Your task to perform on an android device: open app "The Home Depot" Image 0: 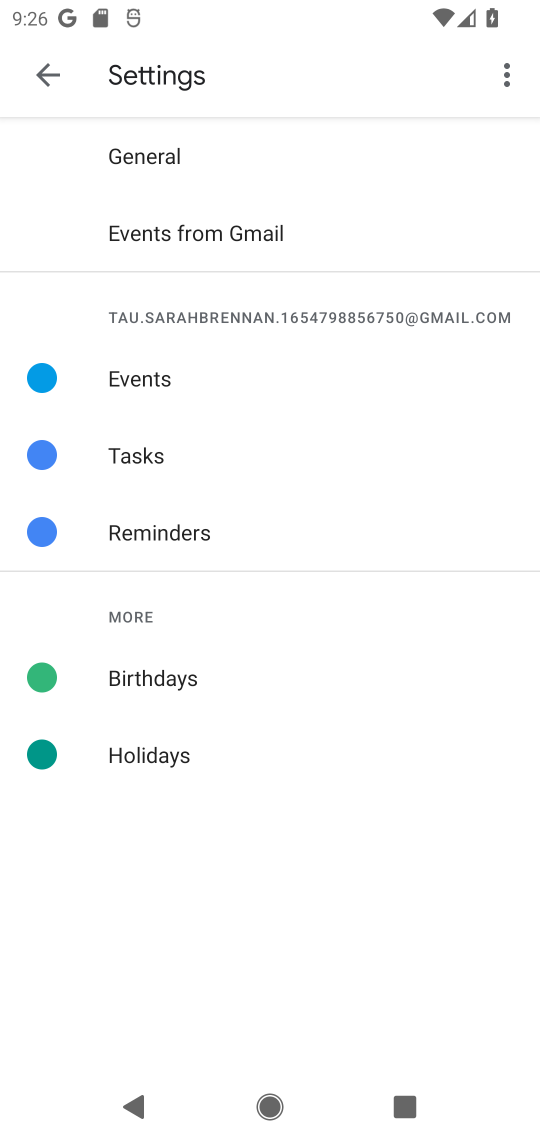
Step 0: press home button
Your task to perform on an android device: open app "The Home Depot" Image 1: 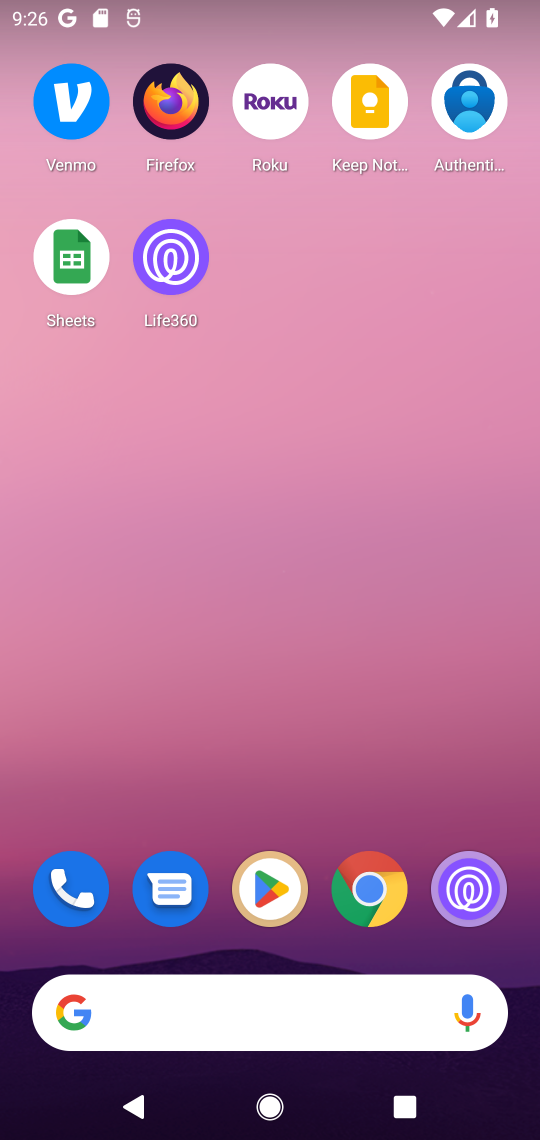
Step 1: click (268, 880)
Your task to perform on an android device: open app "The Home Depot" Image 2: 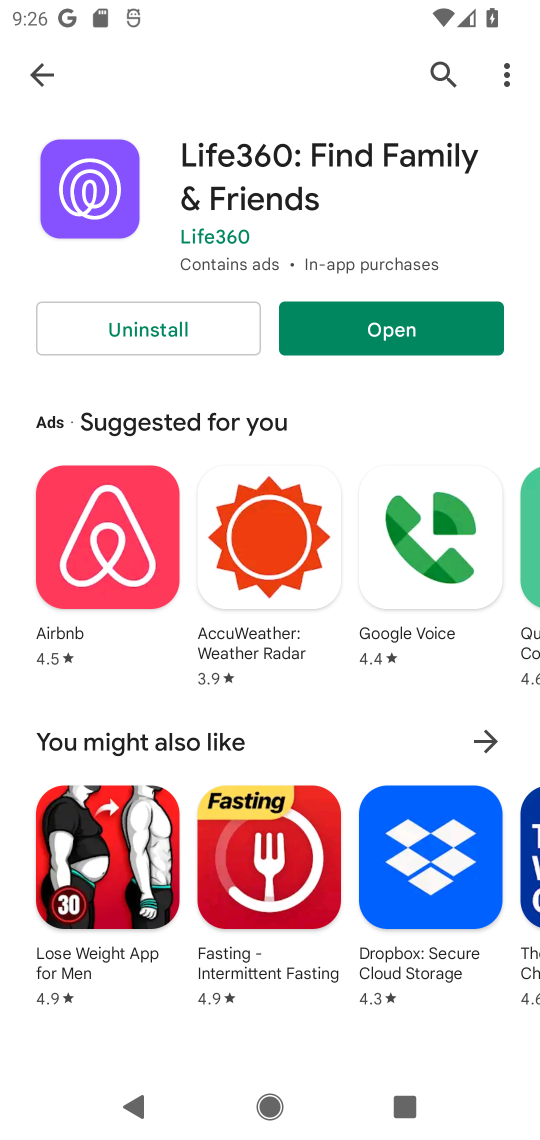
Step 2: click (41, 87)
Your task to perform on an android device: open app "The Home Depot" Image 3: 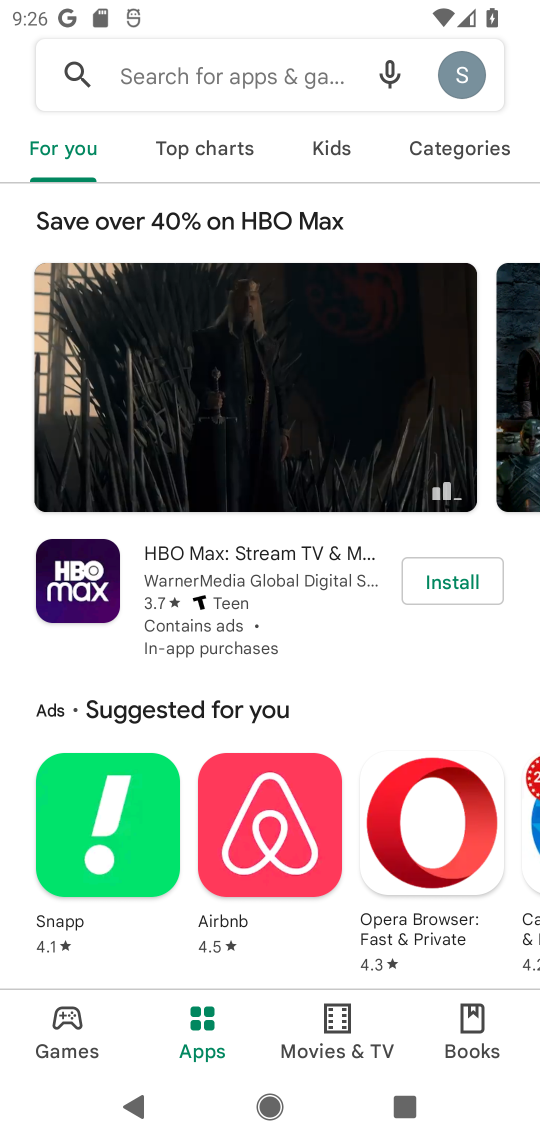
Step 3: click (228, 68)
Your task to perform on an android device: open app "The Home Depot" Image 4: 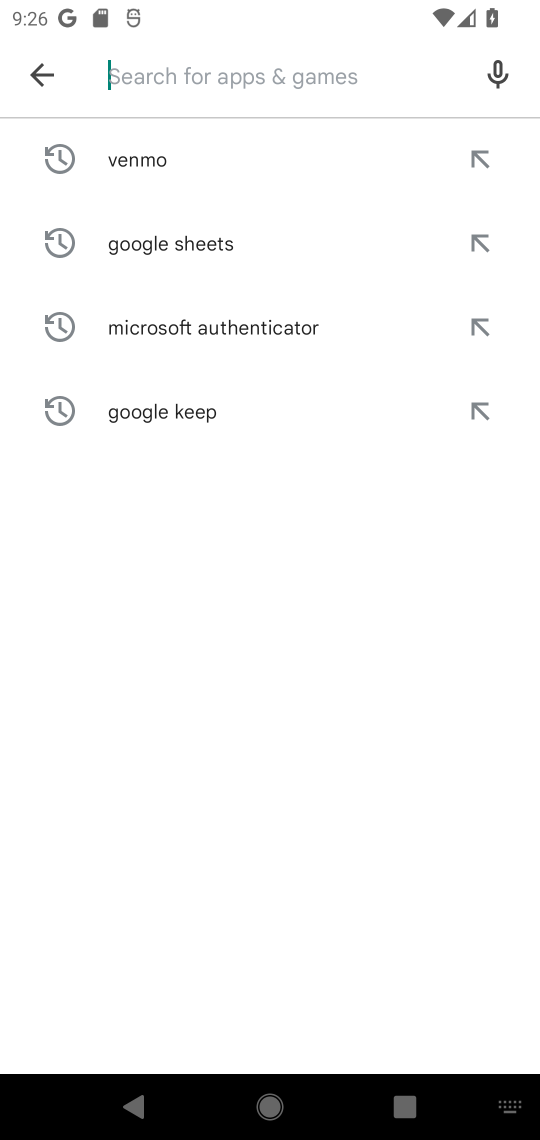
Step 4: type "The Home Depot"
Your task to perform on an android device: open app "The Home Depot" Image 5: 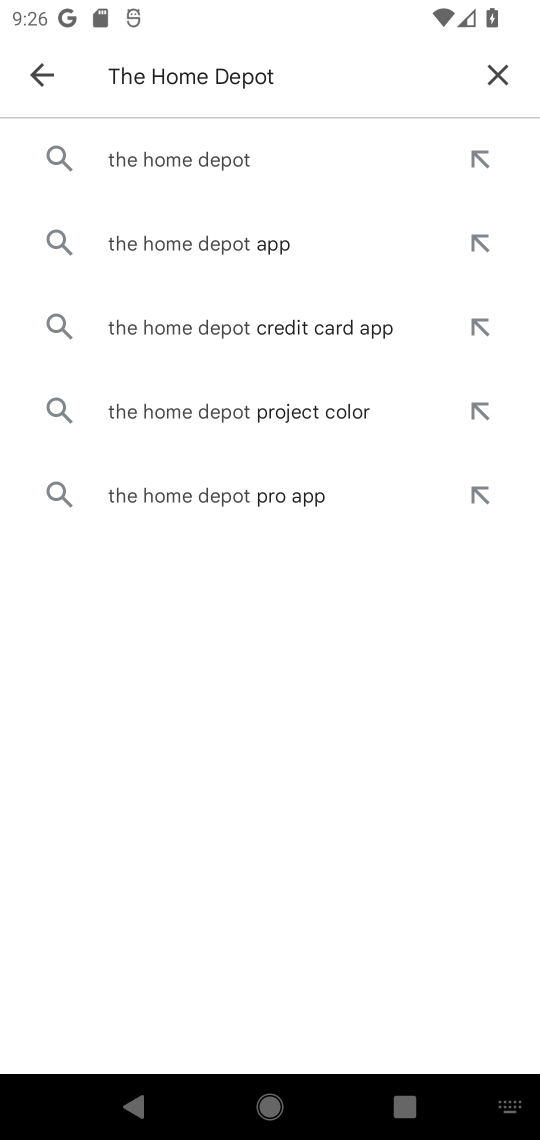
Step 5: click (235, 156)
Your task to perform on an android device: open app "The Home Depot" Image 6: 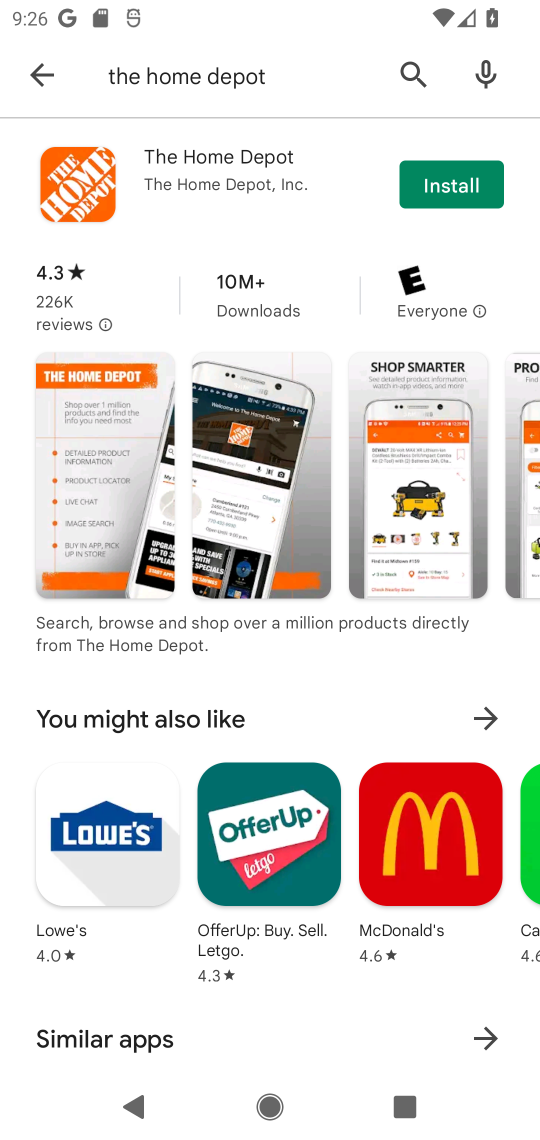
Step 6: click (455, 182)
Your task to perform on an android device: open app "The Home Depot" Image 7: 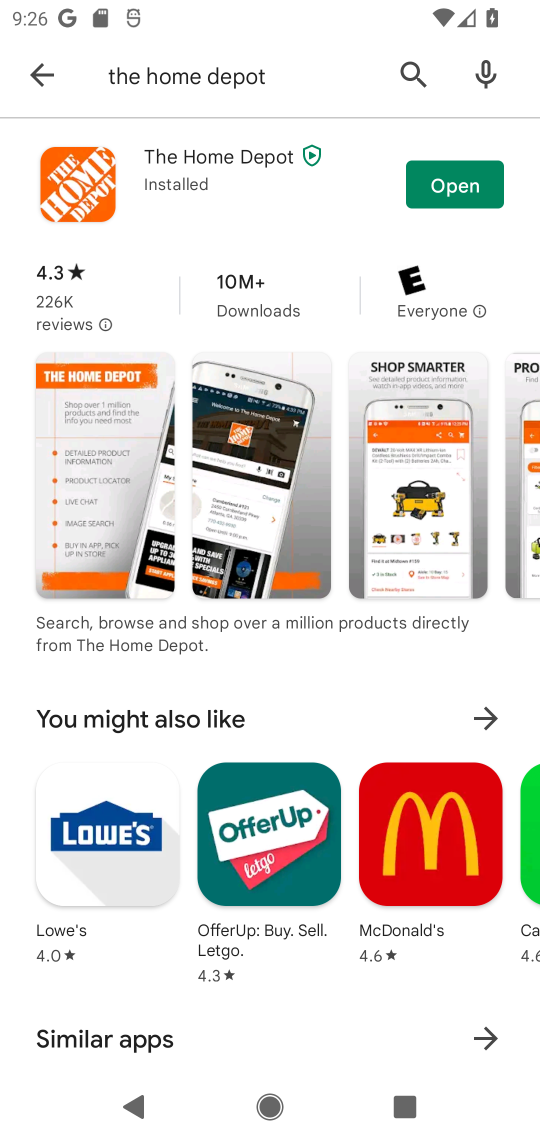
Step 7: click (455, 182)
Your task to perform on an android device: open app "The Home Depot" Image 8: 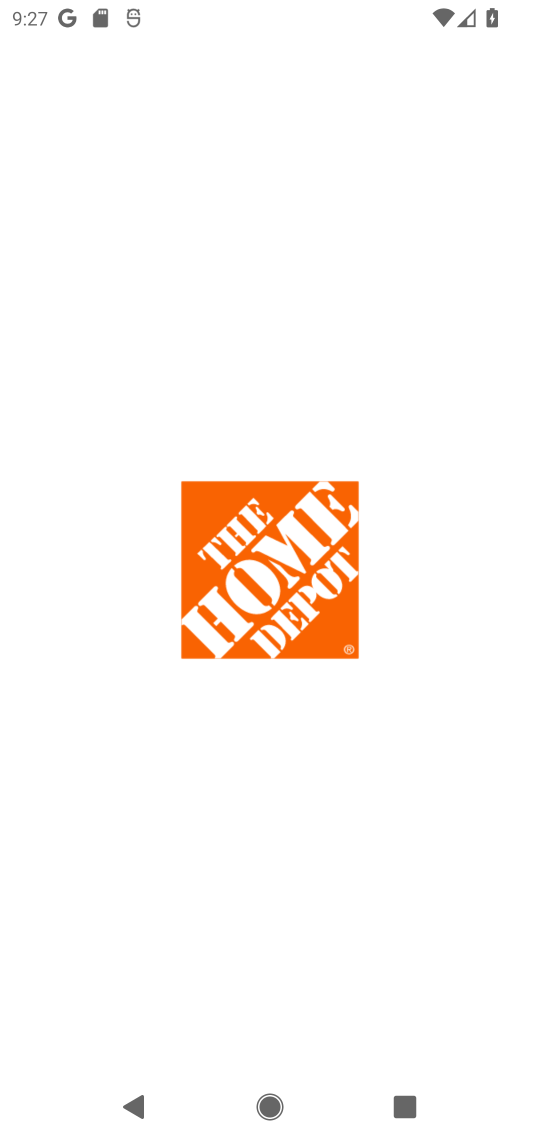
Step 8: task complete